Your task to perform on an android device: Search for Italian restaurants on Maps Image 0: 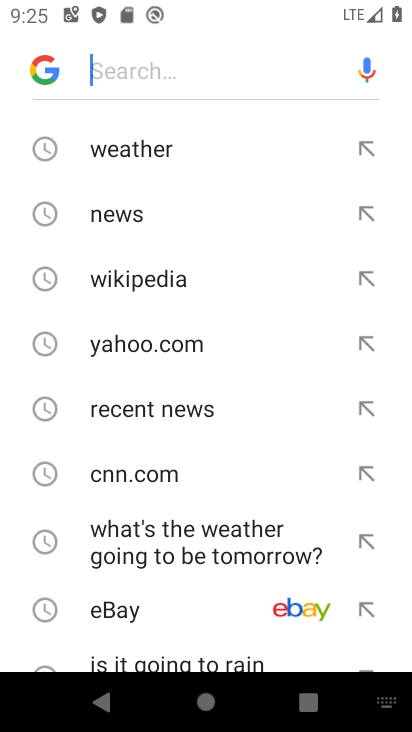
Step 0: press home button
Your task to perform on an android device: Search for Italian restaurants on Maps Image 1: 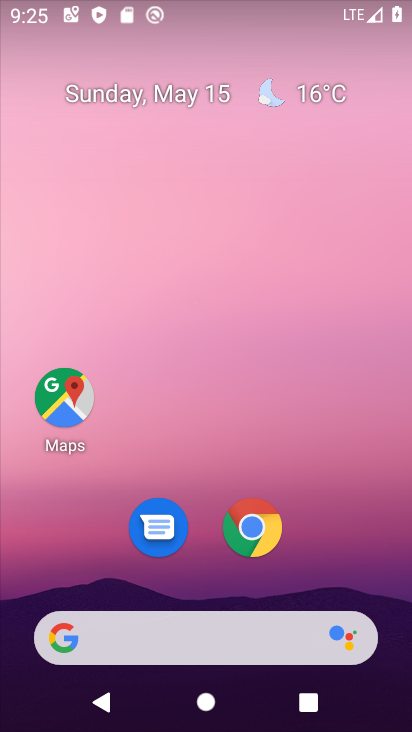
Step 1: click (66, 399)
Your task to perform on an android device: Search for Italian restaurants on Maps Image 2: 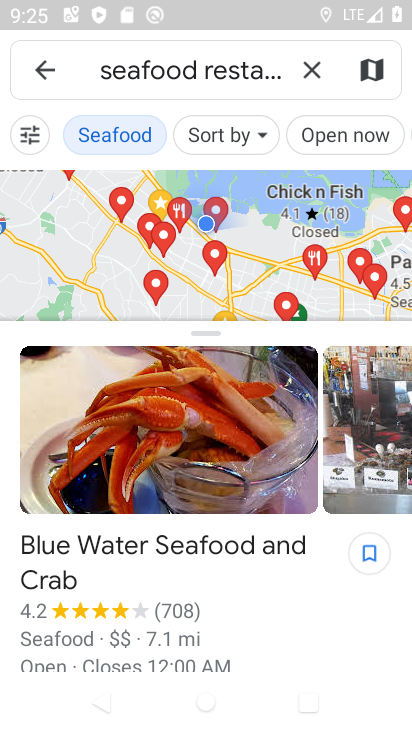
Step 2: click (316, 72)
Your task to perform on an android device: Search for Italian restaurants on Maps Image 3: 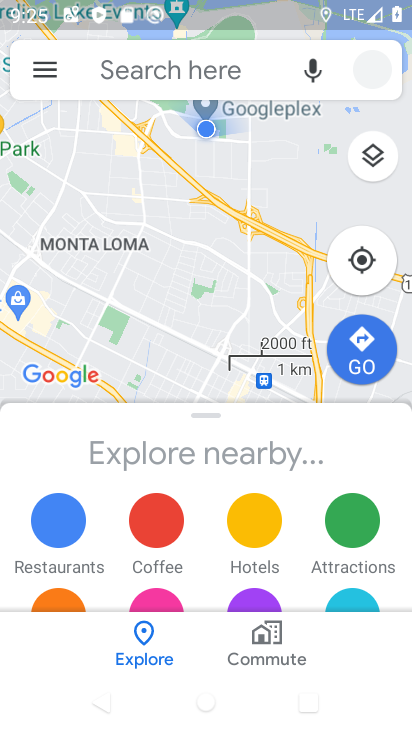
Step 3: click (118, 72)
Your task to perform on an android device: Search for Italian restaurants on Maps Image 4: 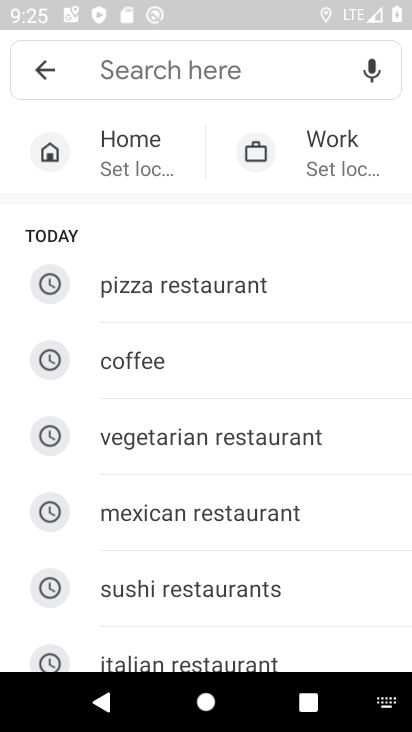
Step 4: type "italian restaurant"
Your task to perform on an android device: Search for Italian restaurants on Maps Image 5: 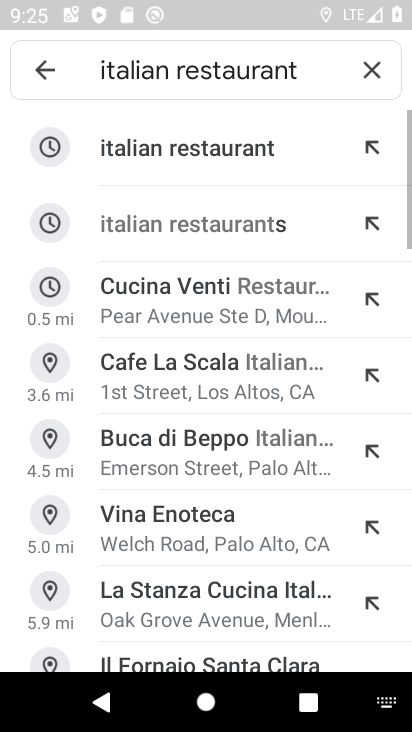
Step 5: click (190, 154)
Your task to perform on an android device: Search for Italian restaurants on Maps Image 6: 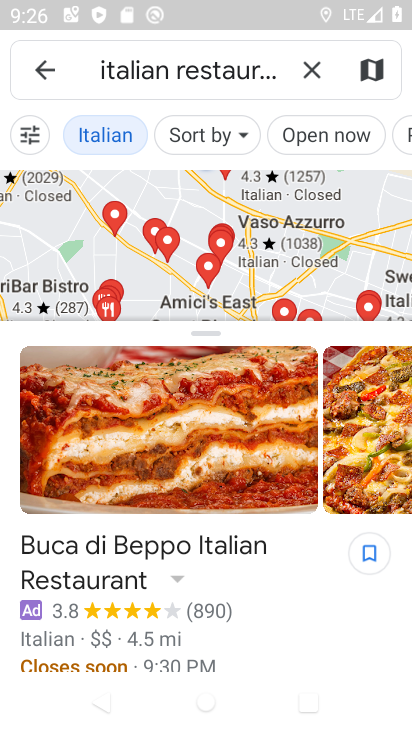
Step 6: task complete